Your task to perform on an android device: turn off javascript in the chrome app Image 0: 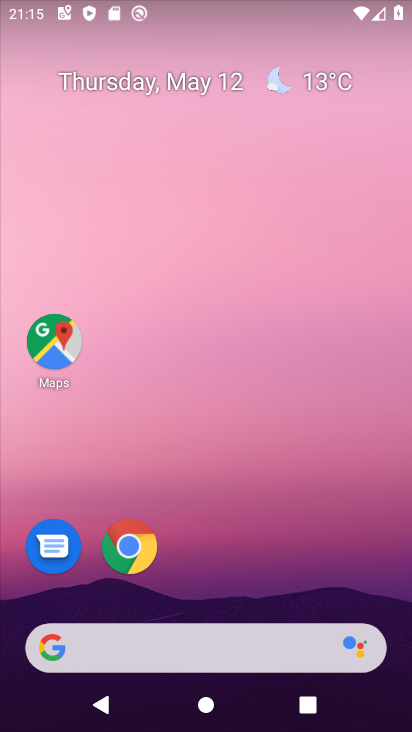
Step 0: click (130, 543)
Your task to perform on an android device: turn off javascript in the chrome app Image 1: 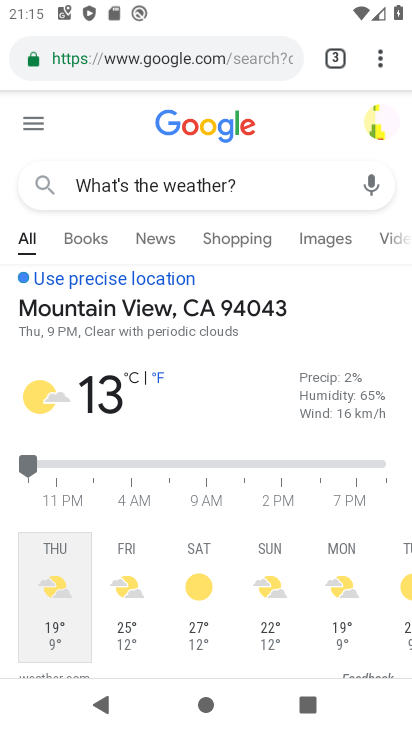
Step 1: drag from (378, 59) to (202, 582)
Your task to perform on an android device: turn off javascript in the chrome app Image 2: 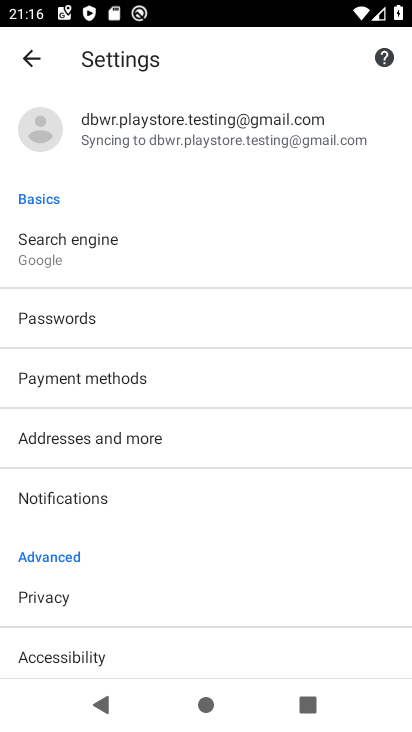
Step 2: drag from (293, 567) to (289, 263)
Your task to perform on an android device: turn off javascript in the chrome app Image 3: 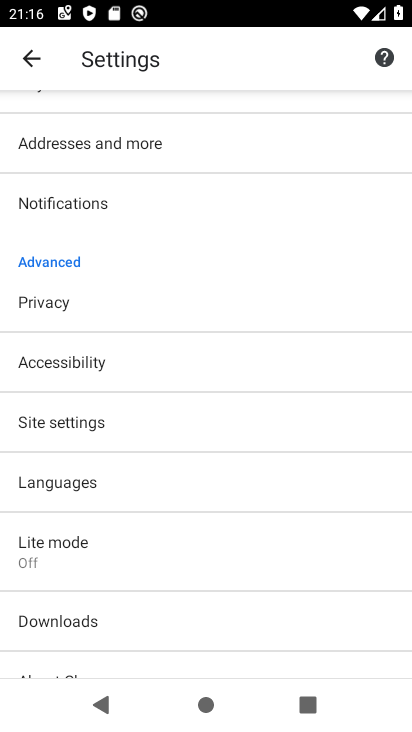
Step 3: click (83, 417)
Your task to perform on an android device: turn off javascript in the chrome app Image 4: 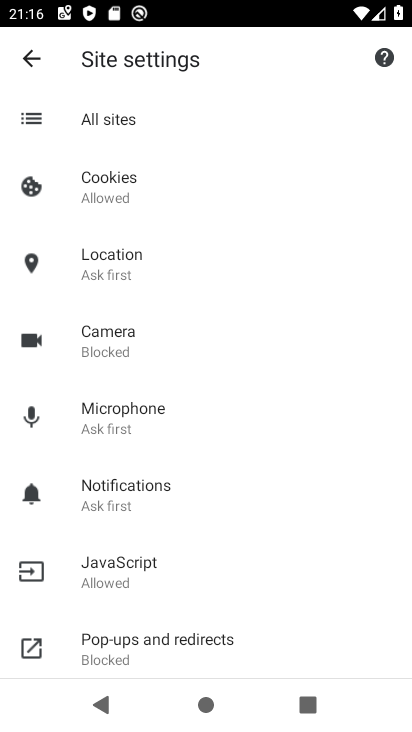
Step 4: click (88, 571)
Your task to perform on an android device: turn off javascript in the chrome app Image 5: 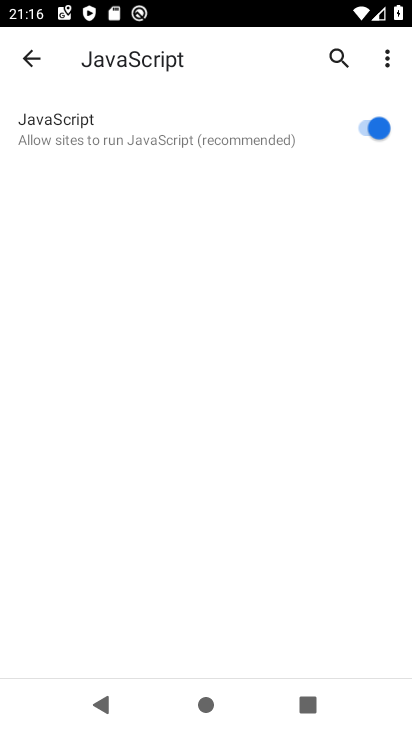
Step 5: click (384, 133)
Your task to perform on an android device: turn off javascript in the chrome app Image 6: 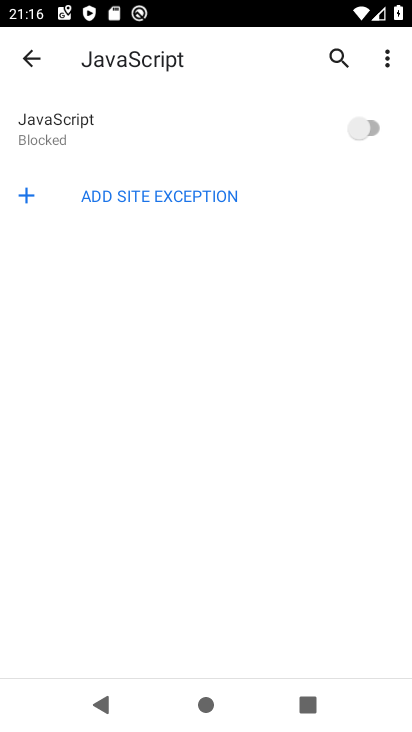
Step 6: task complete